Your task to perform on an android device: Search for pizza restaurants on Maps Image 0: 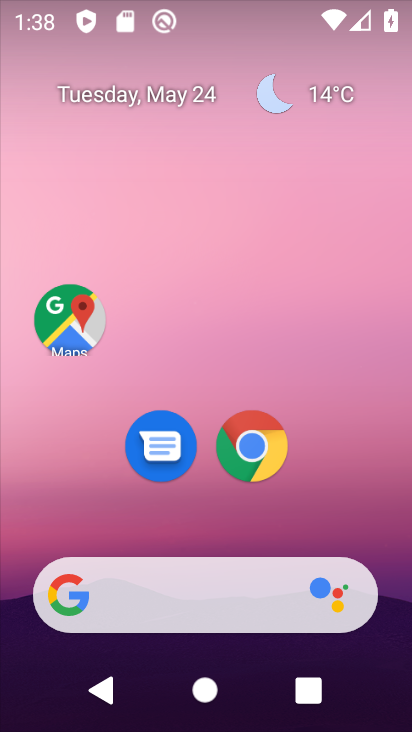
Step 0: click (67, 326)
Your task to perform on an android device: Search for pizza restaurants on Maps Image 1: 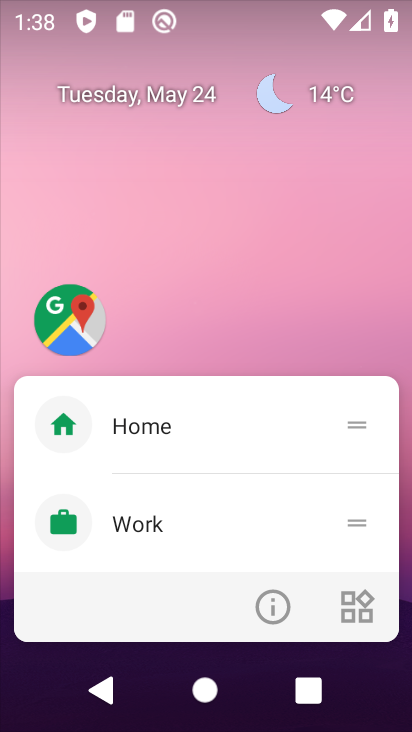
Step 1: click (74, 344)
Your task to perform on an android device: Search for pizza restaurants on Maps Image 2: 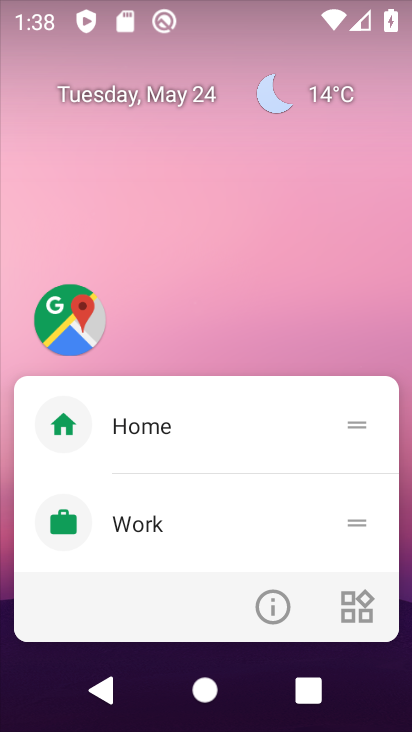
Step 2: click (74, 350)
Your task to perform on an android device: Search for pizza restaurants on Maps Image 3: 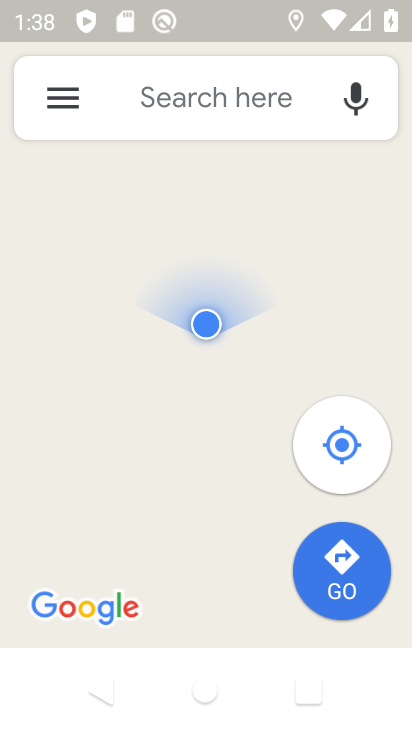
Step 3: click (161, 104)
Your task to perform on an android device: Search for pizza restaurants on Maps Image 4: 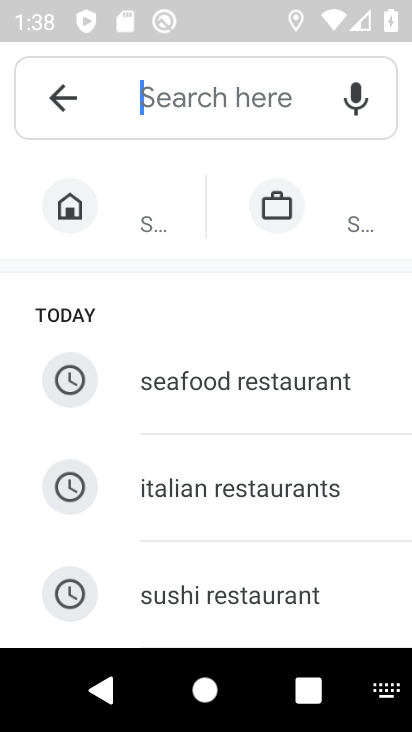
Step 4: type "Pizza restaurants"
Your task to perform on an android device: Search for pizza restaurants on Maps Image 5: 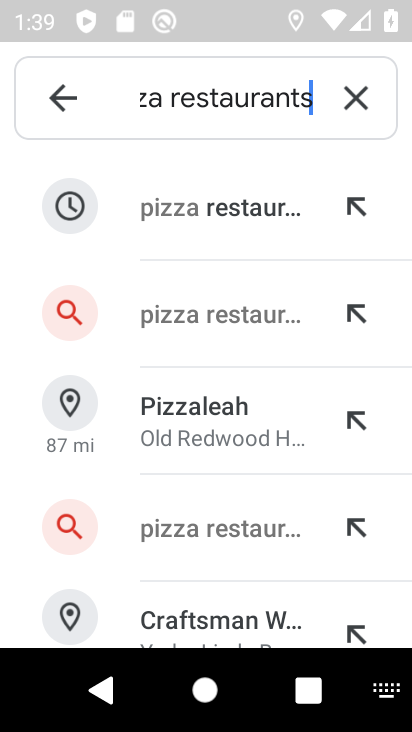
Step 5: click (182, 224)
Your task to perform on an android device: Search for pizza restaurants on Maps Image 6: 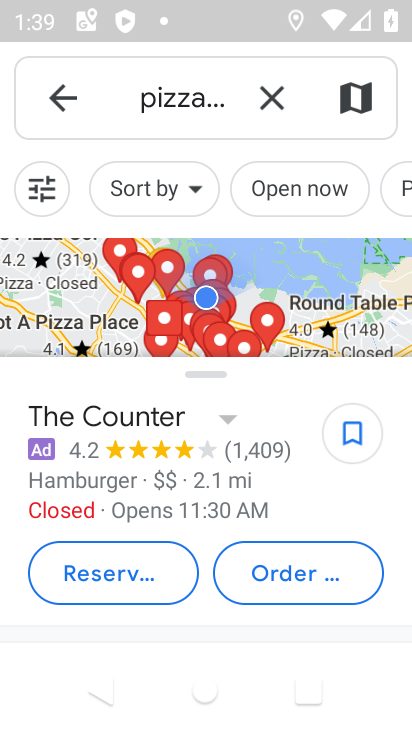
Step 6: task complete